Your task to perform on an android device: Search for 24"x36" picture frame on Home Depot. Image 0: 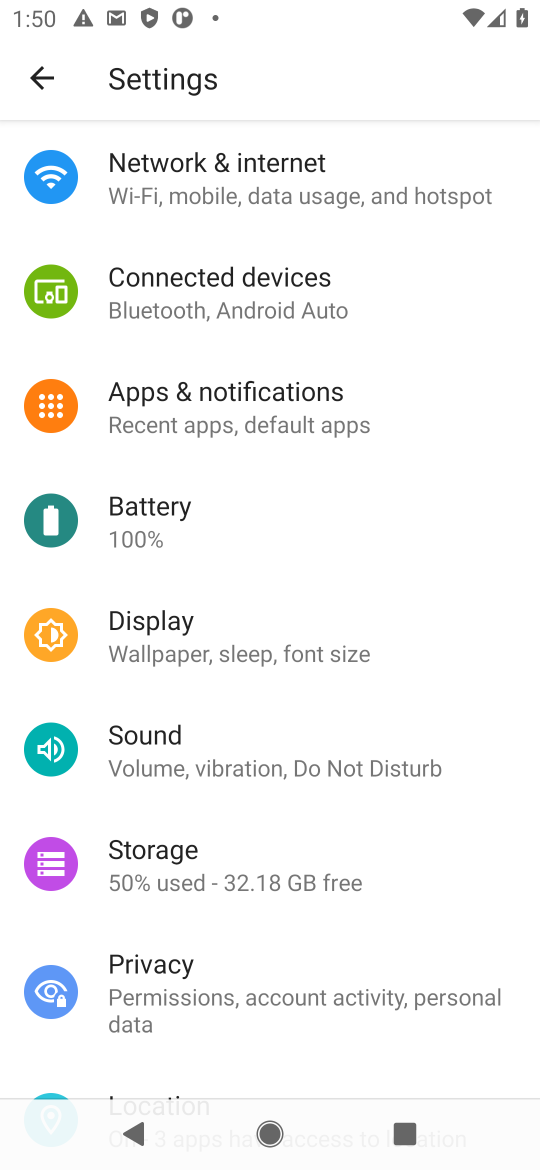
Step 0: press home button
Your task to perform on an android device: Search for 24"x36" picture frame on Home Depot. Image 1: 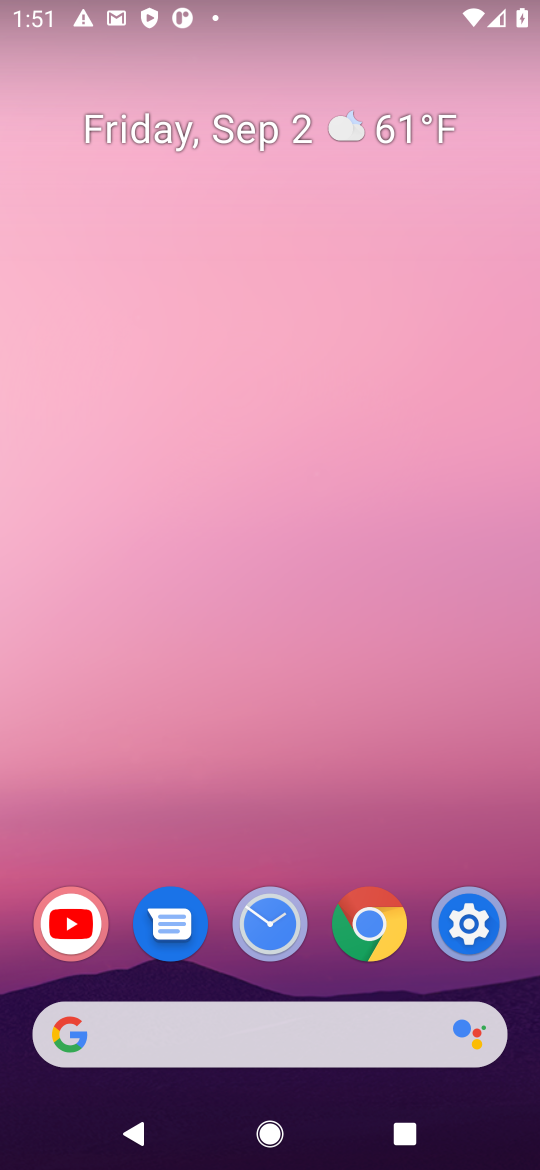
Step 1: click (395, 1041)
Your task to perform on an android device: Search for 24"x36" picture frame on Home Depot. Image 2: 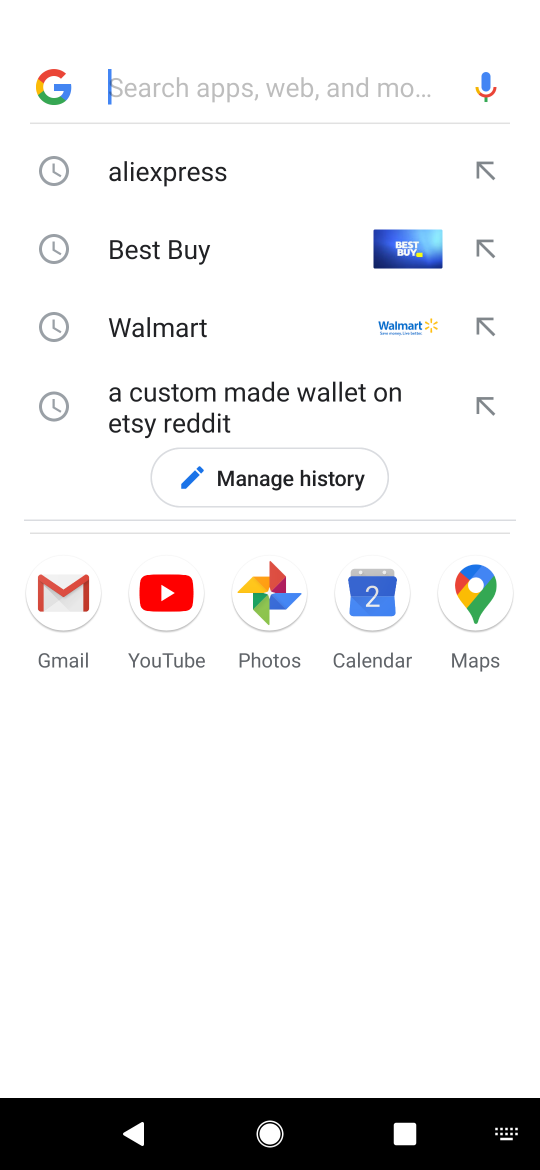
Step 2: press enter
Your task to perform on an android device: Search for 24"x36" picture frame on Home Depot. Image 3: 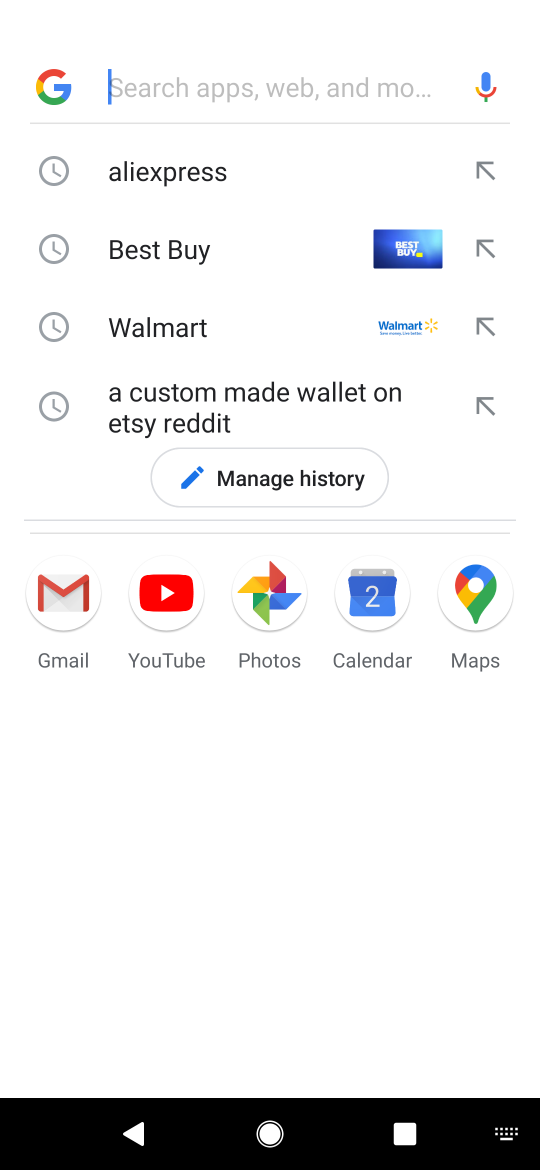
Step 3: type "home depot"
Your task to perform on an android device: Search for 24"x36" picture frame on Home Depot. Image 4: 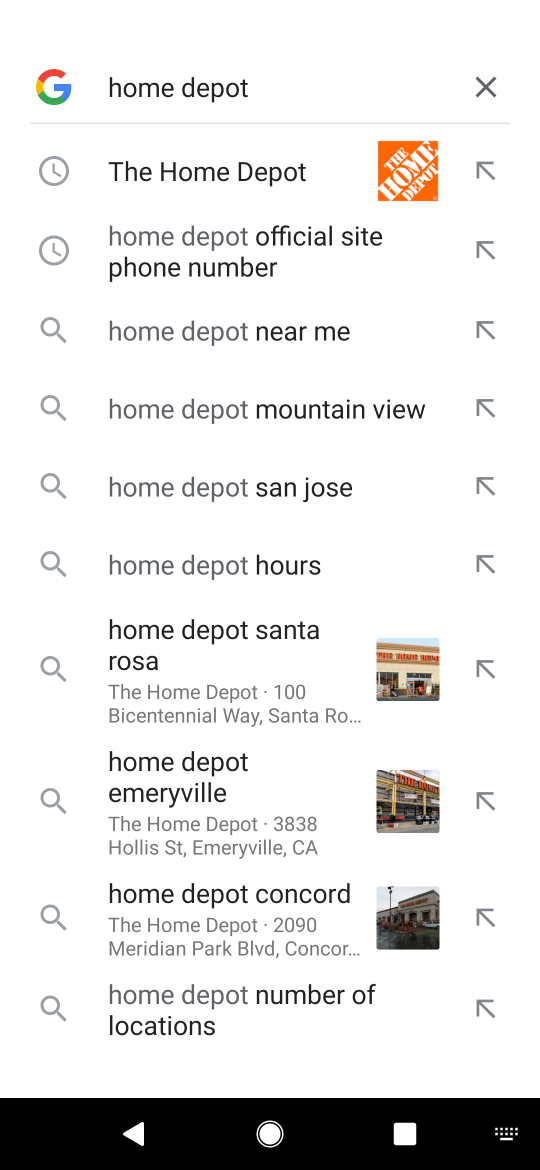
Step 4: click (266, 177)
Your task to perform on an android device: Search for 24"x36" picture frame on Home Depot. Image 5: 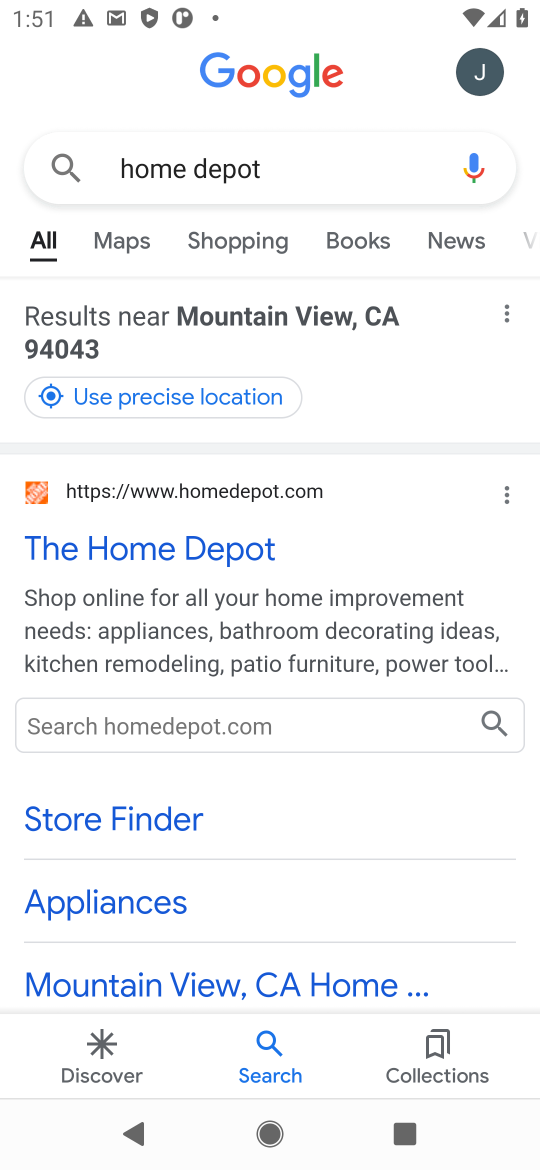
Step 5: click (240, 544)
Your task to perform on an android device: Search for 24"x36" picture frame on Home Depot. Image 6: 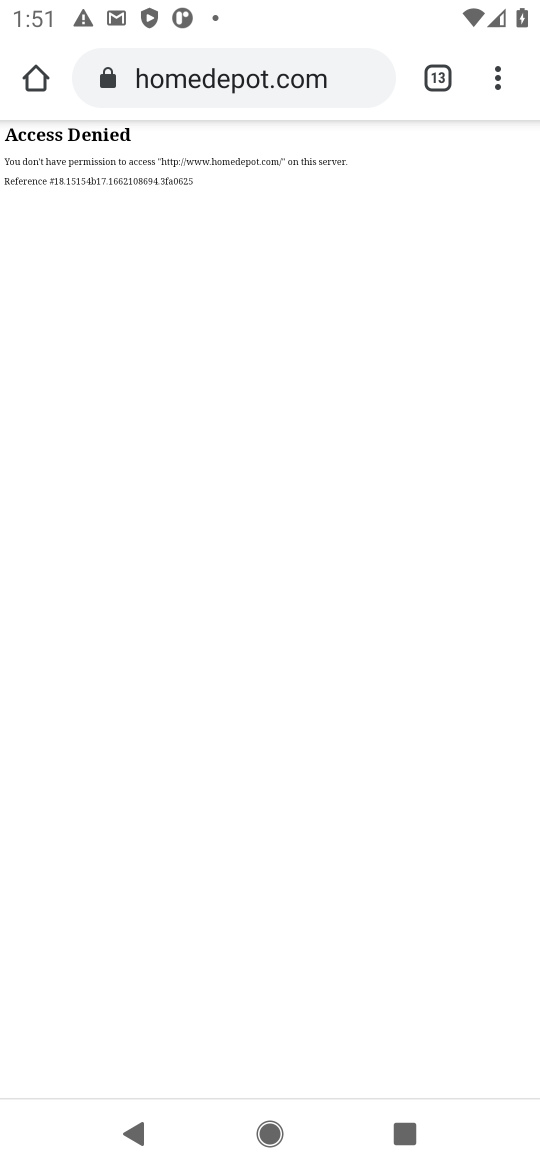
Step 6: task complete